Your task to perform on an android device: add a contact in the contacts app Image 0: 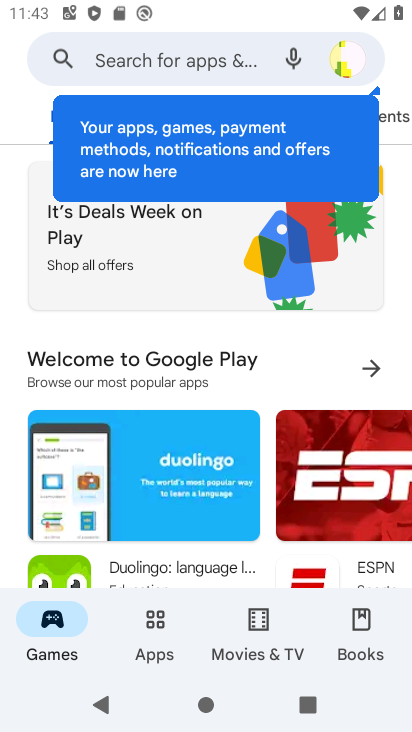
Step 0: press home button
Your task to perform on an android device: add a contact in the contacts app Image 1: 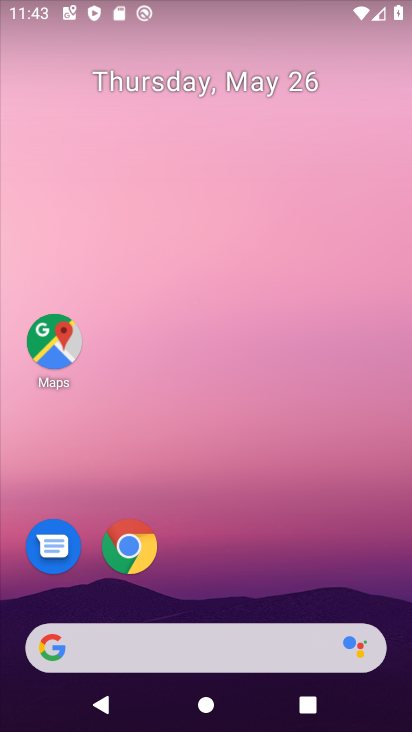
Step 1: drag from (245, 541) to (140, 95)
Your task to perform on an android device: add a contact in the contacts app Image 2: 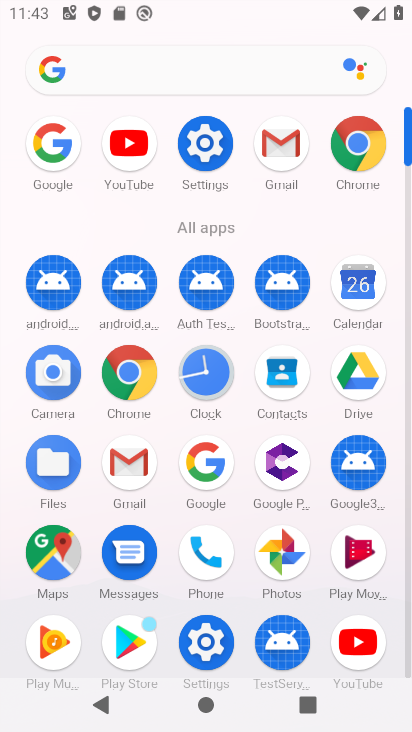
Step 2: click (269, 373)
Your task to perform on an android device: add a contact in the contacts app Image 3: 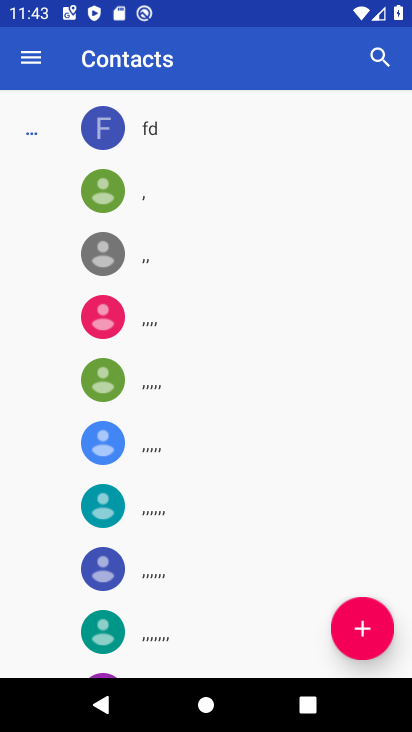
Step 3: click (354, 627)
Your task to perform on an android device: add a contact in the contacts app Image 4: 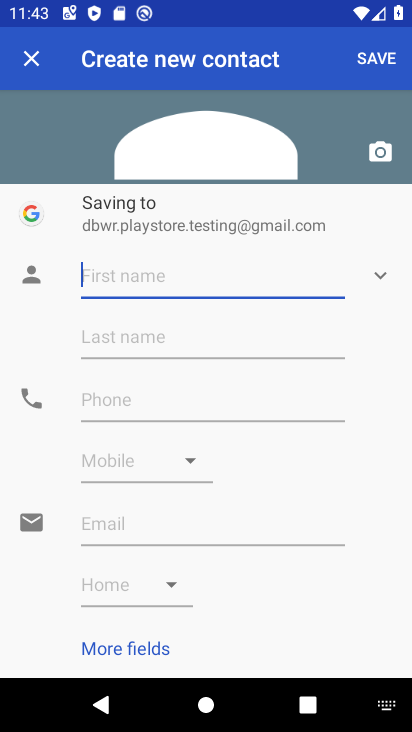
Step 4: type "ggggggggg"
Your task to perform on an android device: add a contact in the contacts app Image 5: 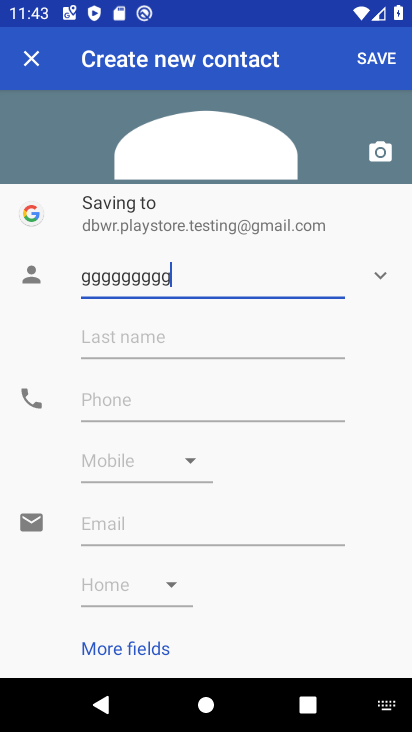
Step 5: click (127, 398)
Your task to perform on an android device: add a contact in the contacts app Image 6: 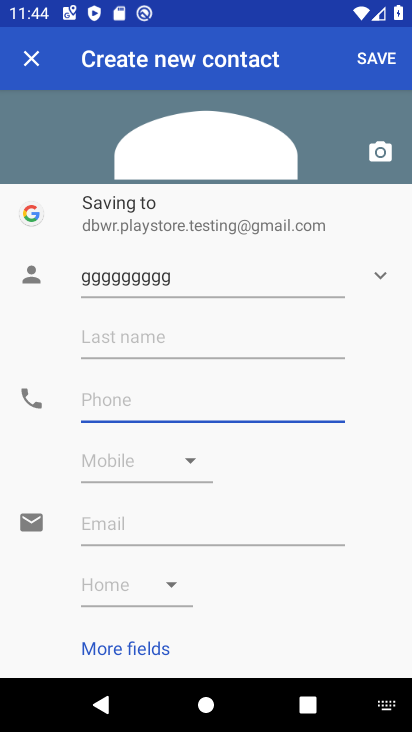
Step 6: type "777777777"
Your task to perform on an android device: add a contact in the contacts app Image 7: 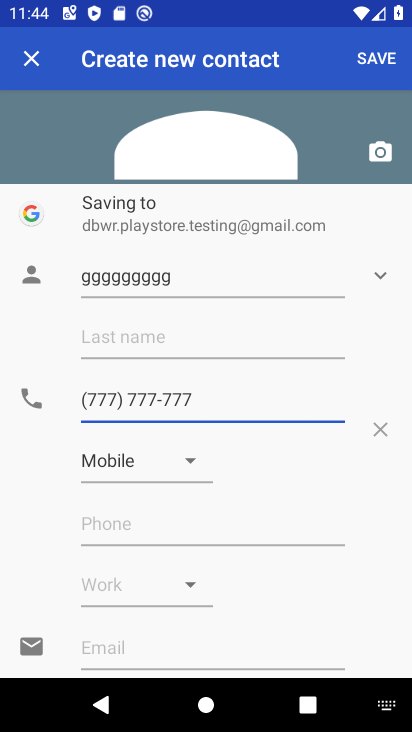
Step 7: click (384, 58)
Your task to perform on an android device: add a contact in the contacts app Image 8: 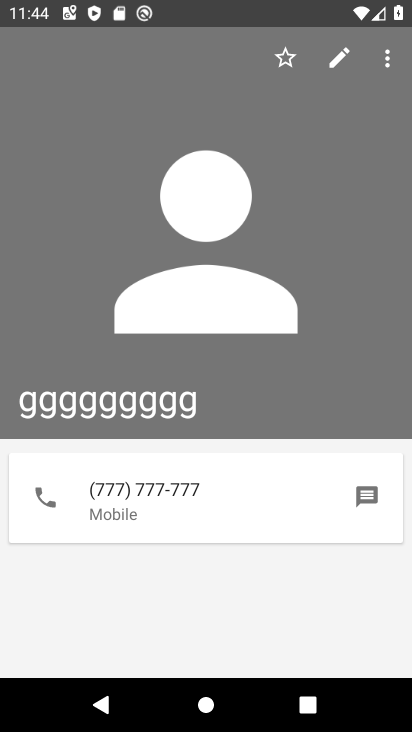
Step 8: task complete